Your task to perform on an android device: Search for Mexican restaurants on Maps Image 0: 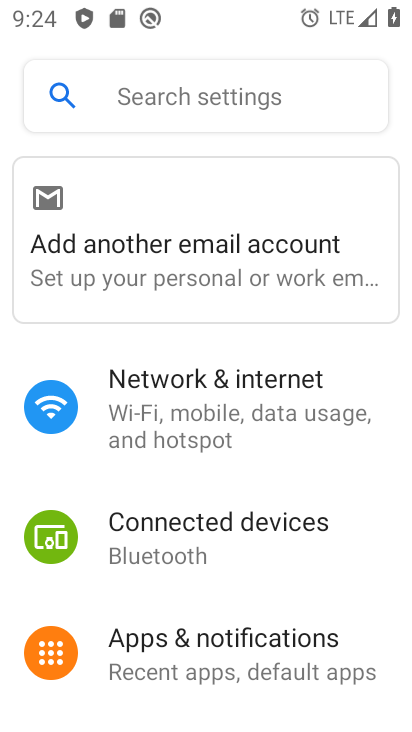
Step 0: drag from (219, 626) to (328, 183)
Your task to perform on an android device: Search for Mexican restaurants on Maps Image 1: 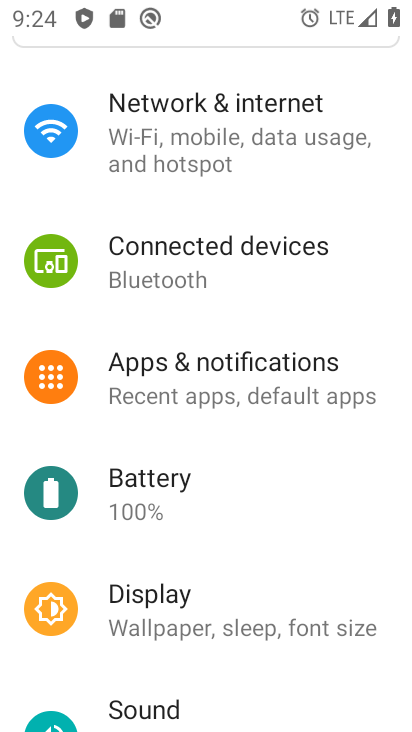
Step 1: press home button
Your task to perform on an android device: Search for Mexican restaurants on Maps Image 2: 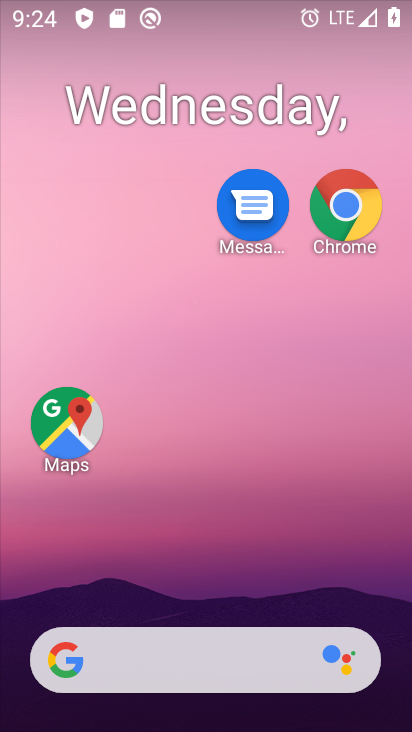
Step 2: click (61, 432)
Your task to perform on an android device: Search for Mexican restaurants on Maps Image 3: 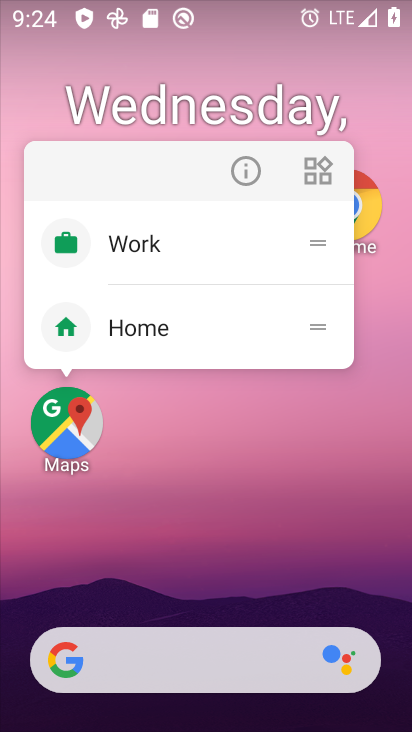
Step 3: click (244, 183)
Your task to perform on an android device: Search for Mexican restaurants on Maps Image 4: 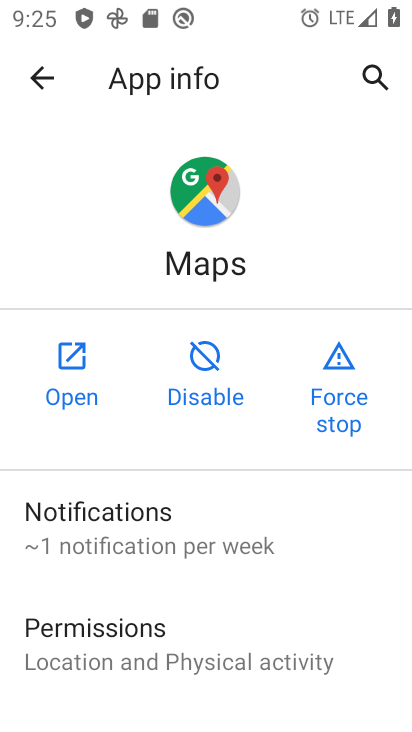
Step 4: click (74, 368)
Your task to perform on an android device: Search for Mexican restaurants on Maps Image 5: 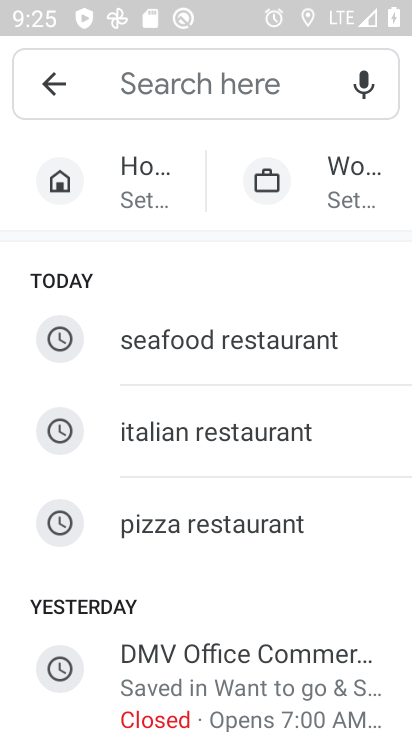
Step 5: drag from (235, 616) to (239, 281)
Your task to perform on an android device: Search for Mexican restaurants on Maps Image 6: 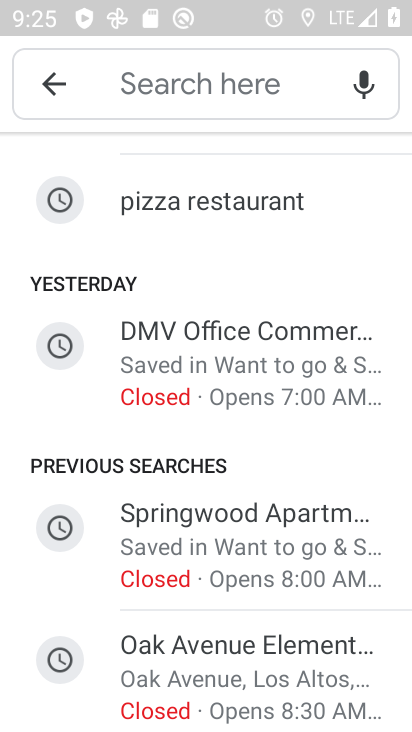
Step 6: drag from (246, 639) to (304, 251)
Your task to perform on an android device: Search for Mexican restaurants on Maps Image 7: 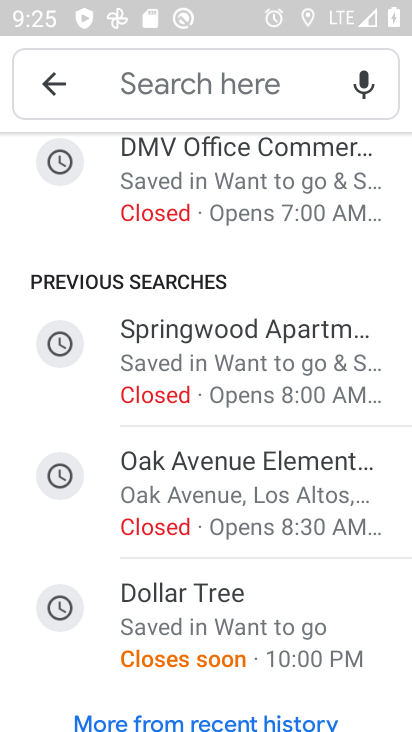
Step 7: drag from (203, 606) to (292, 213)
Your task to perform on an android device: Search for Mexican restaurants on Maps Image 8: 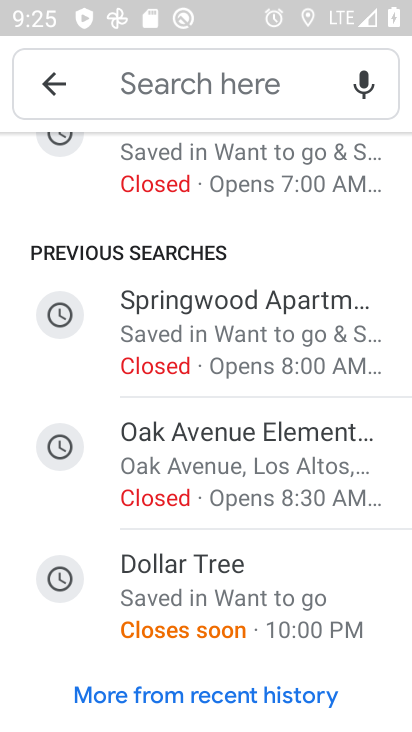
Step 8: click (196, 100)
Your task to perform on an android device: Search for Mexican restaurants on Maps Image 9: 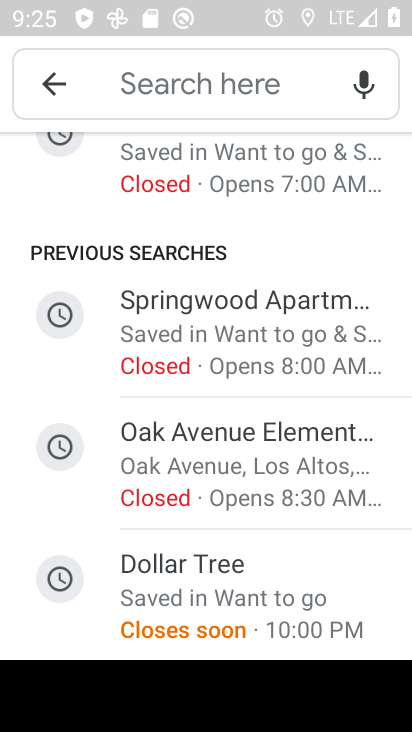
Step 9: type "maxican restaurants"
Your task to perform on an android device: Search for Mexican restaurants on Maps Image 10: 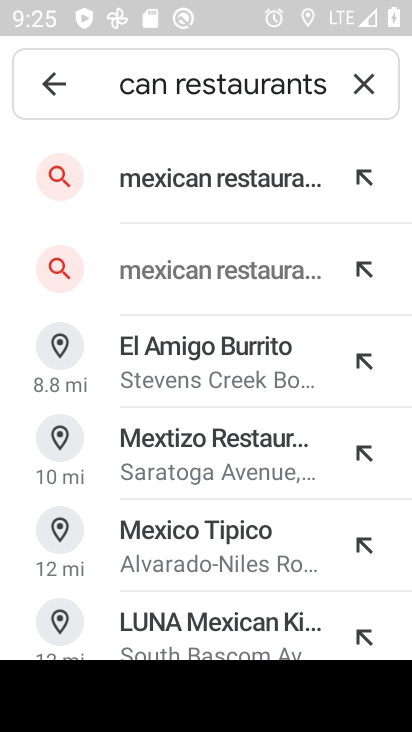
Step 10: click (180, 189)
Your task to perform on an android device: Search for Mexican restaurants on Maps Image 11: 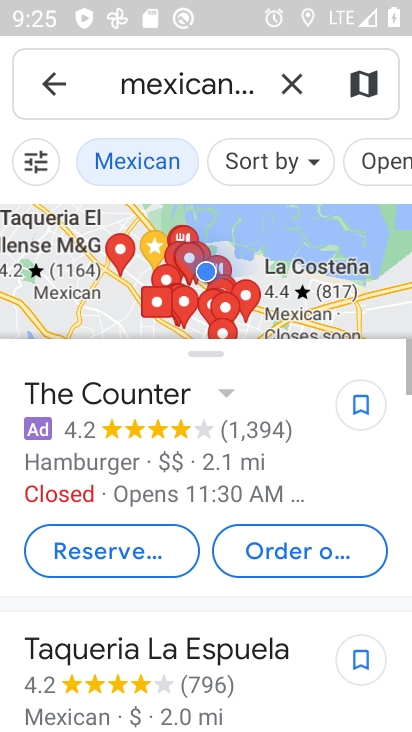
Step 11: drag from (231, 490) to (288, 53)
Your task to perform on an android device: Search for Mexican restaurants on Maps Image 12: 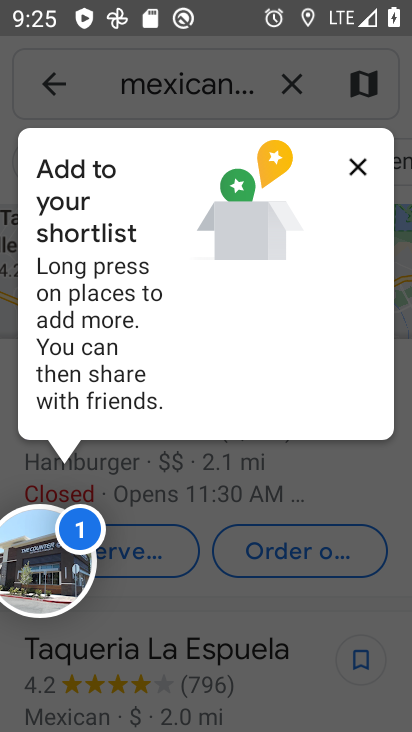
Step 12: click (359, 169)
Your task to perform on an android device: Search for Mexican restaurants on Maps Image 13: 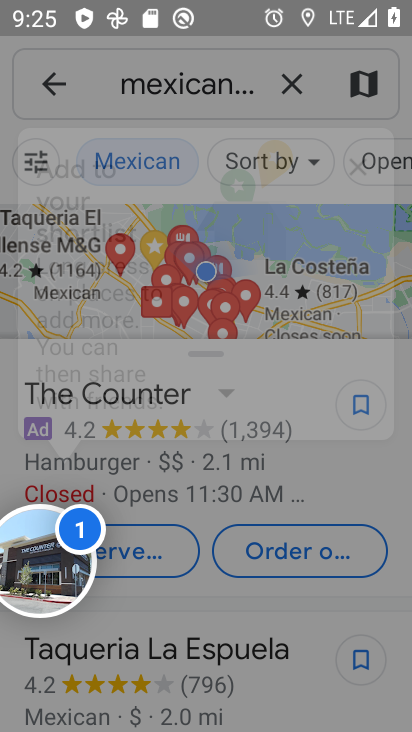
Step 13: task complete